Your task to perform on an android device: move a message to another label in the gmail app Image 0: 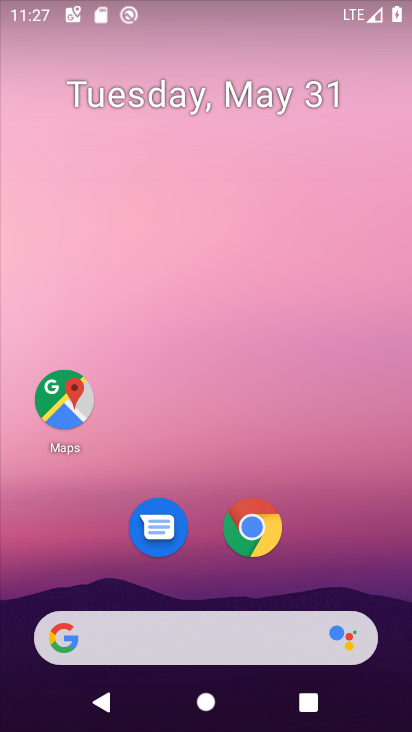
Step 0: drag from (332, 592) to (264, 5)
Your task to perform on an android device: move a message to another label in the gmail app Image 1: 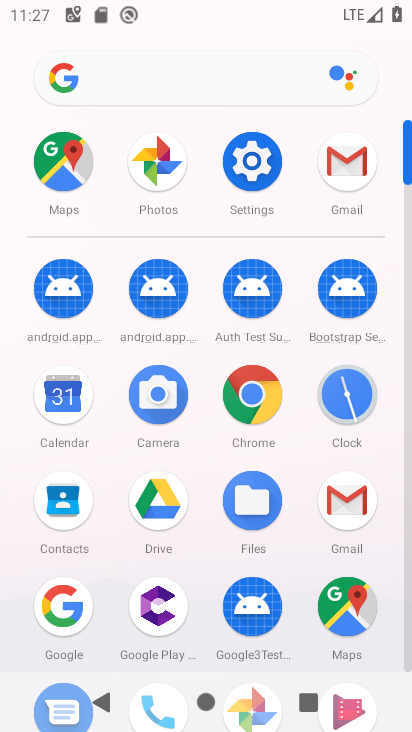
Step 1: click (347, 167)
Your task to perform on an android device: move a message to another label in the gmail app Image 2: 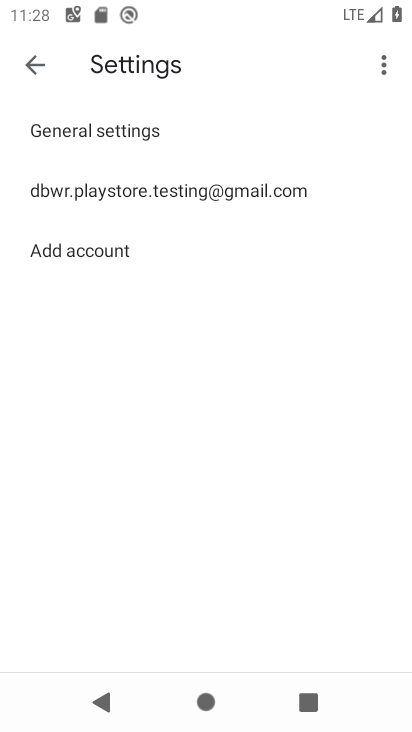
Step 2: click (35, 65)
Your task to perform on an android device: move a message to another label in the gmail app Image 3: 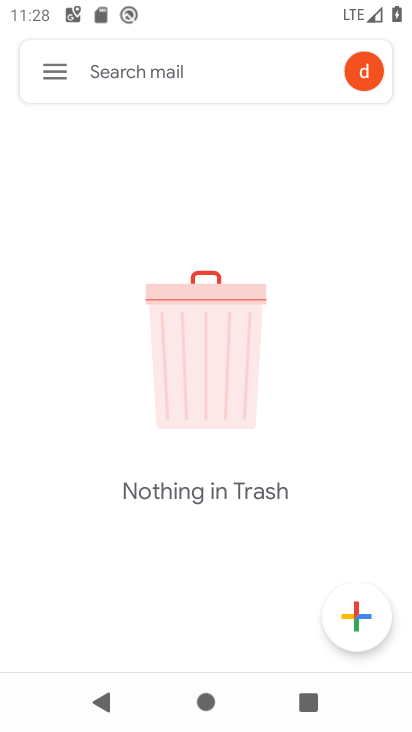
Step 3: click (58, 72)
Your task to perform on an android device: move a message to another label in the gmail app Image 4: 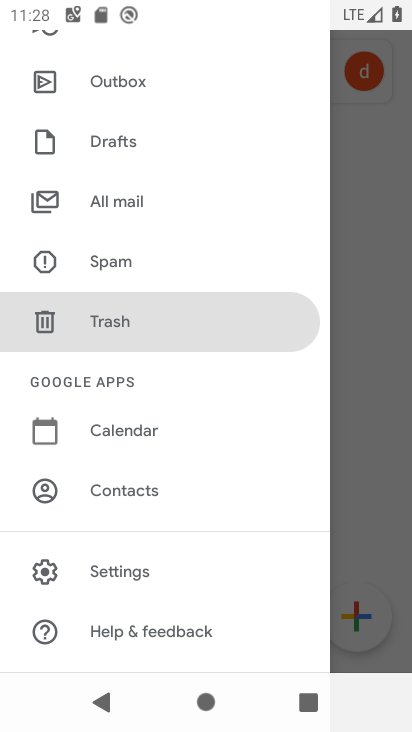
Step 4: click (104, 201)
Your task to perform on an android device: move a message to another label in the gmail app Image 5: 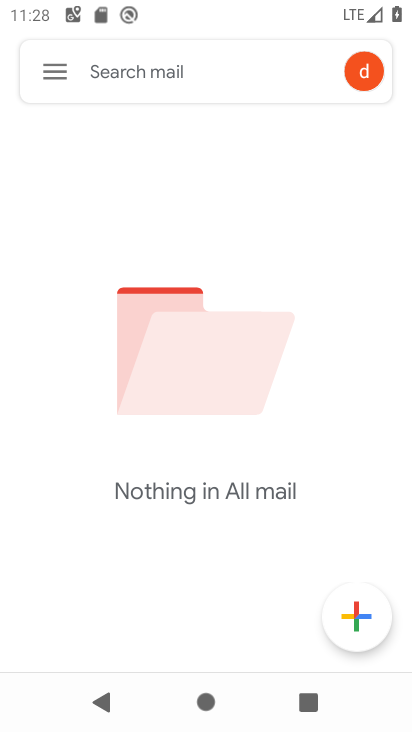
Step 5: task complete